Your task to perform on an android device: Open wifi settings Image 0: 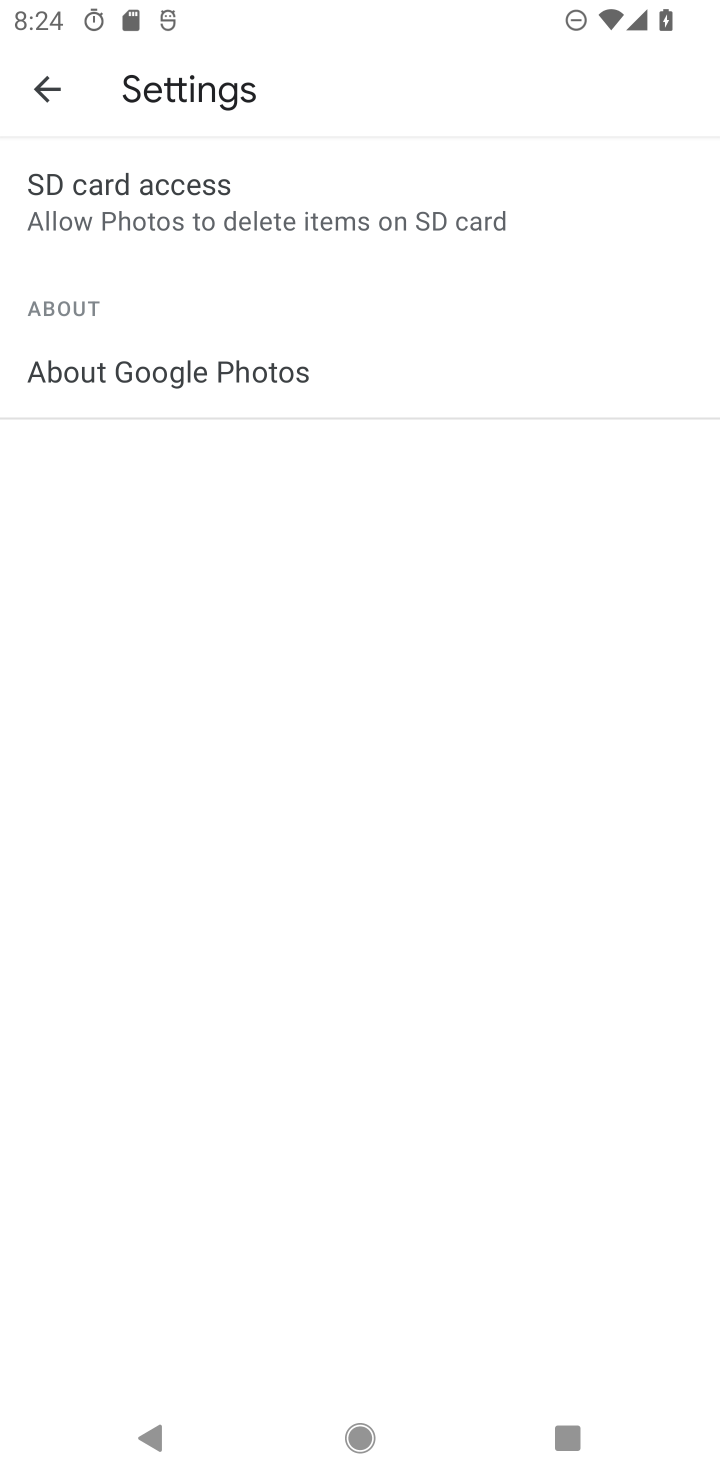
Step 0: press home button
Your task to perform on an android device: Open wifi settings Image 1: 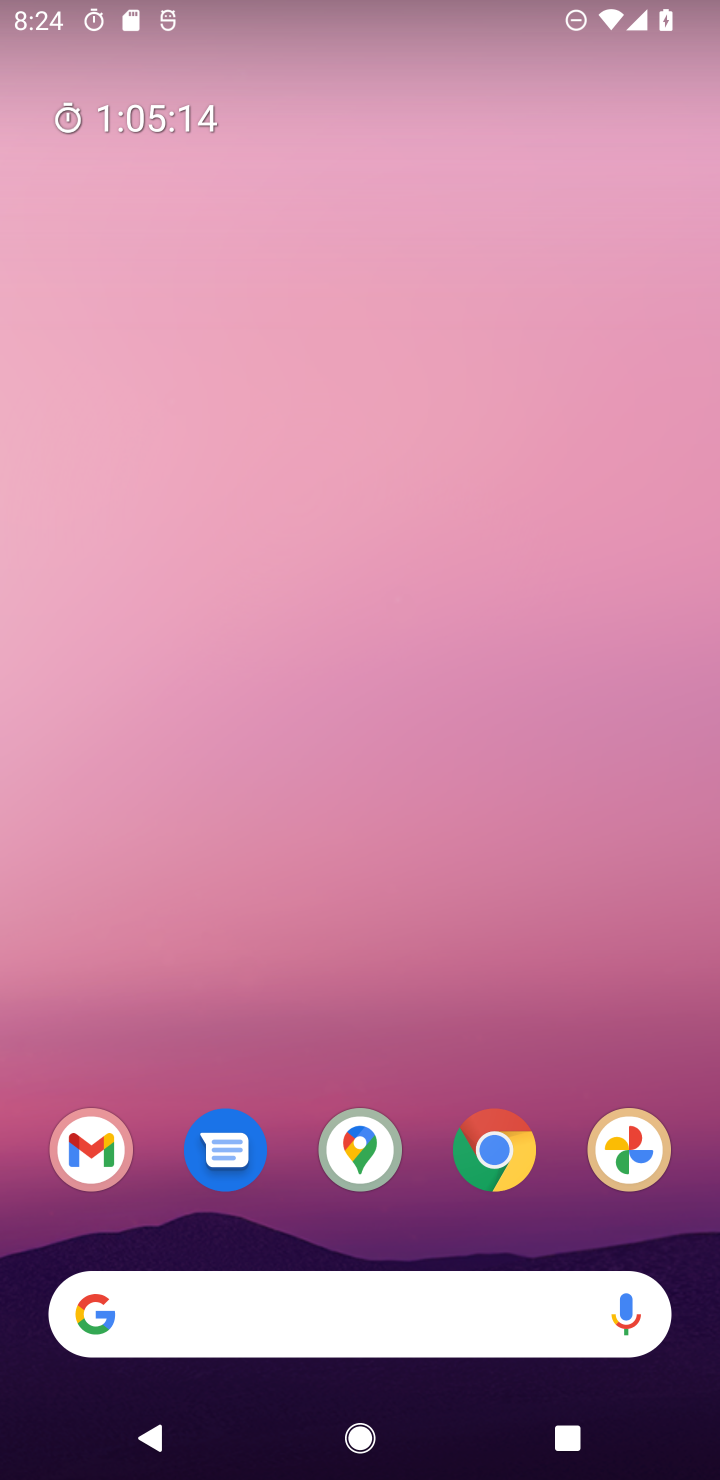
Step 1: drag from (465, 1289) to (434, 14)
Your task to perform on an android device: Open wifi settings Image 2: 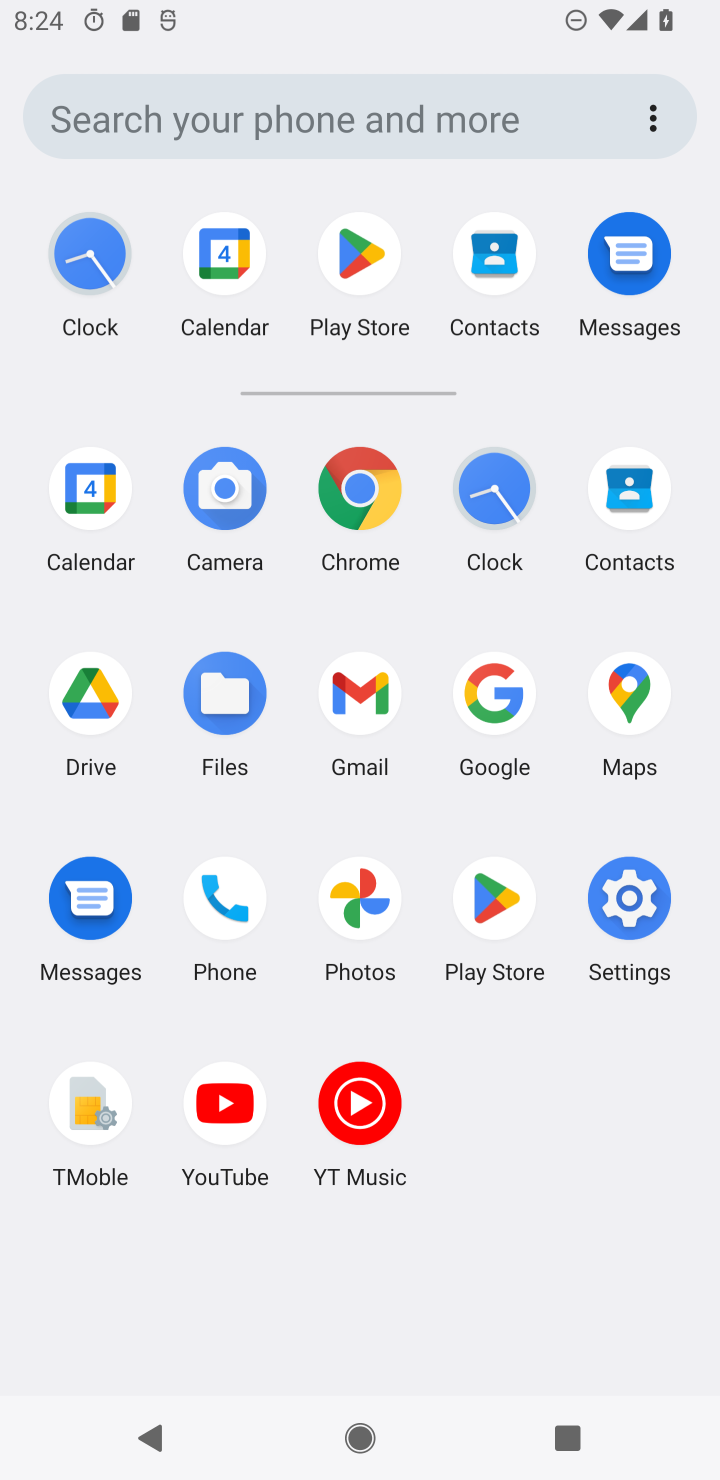
Step 2: click (623, 905)
Your task to perform on an android device: Open wifi settings Image 3: 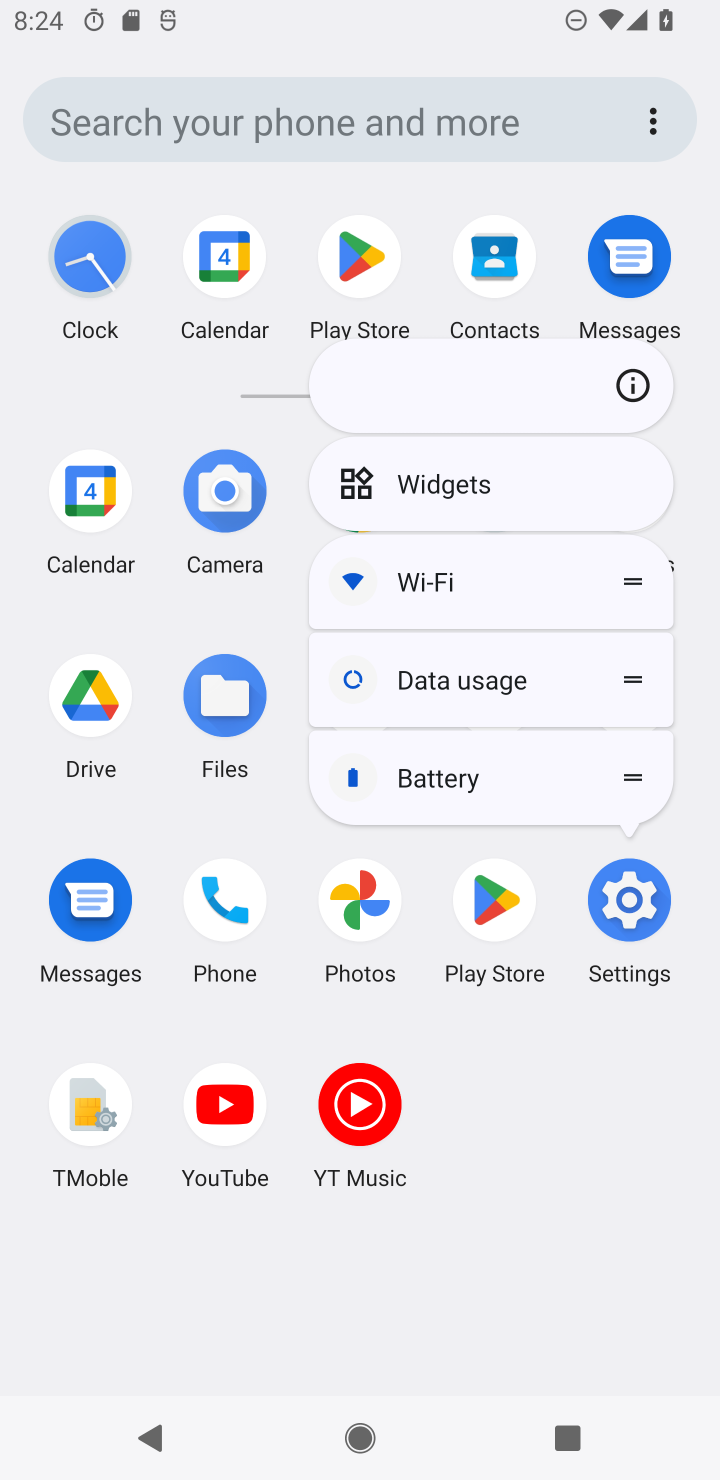
Step 3: click (623, 905)
Your task to perform on an android device: Open wifi settings Image 4: 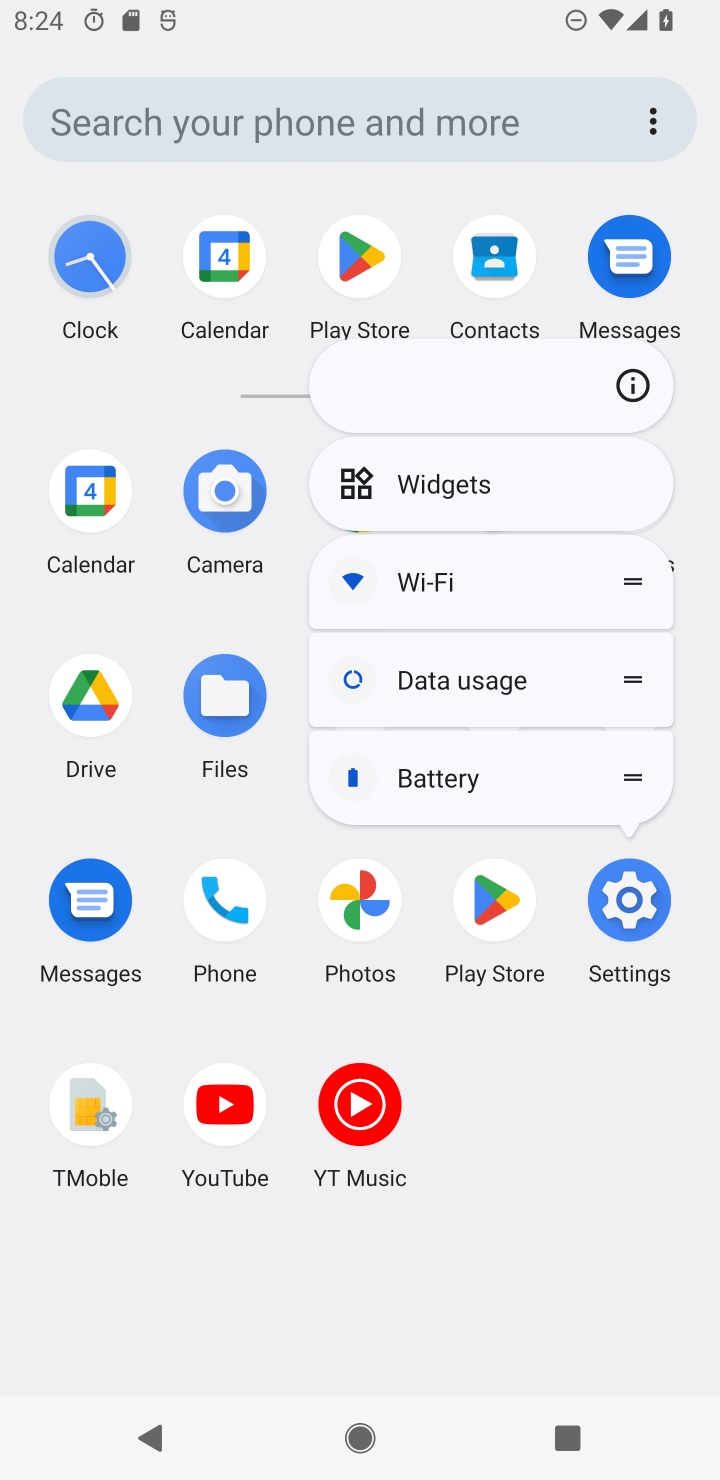
Step 4: click (623, 905)
Your task to perform on an android device: Open wifi settings Image 5: 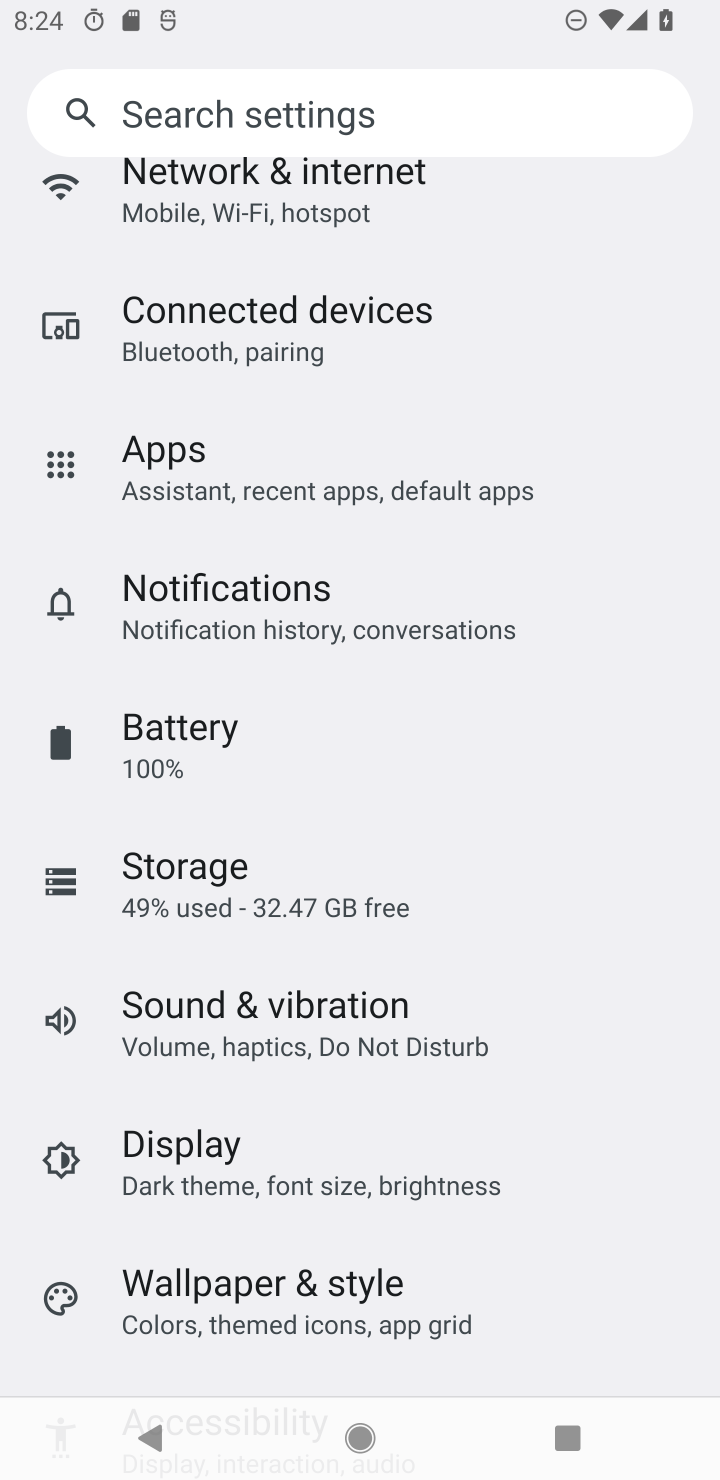
Step 5: drag from (251, 238) to (359, 1253)
Your task to perform on an android device: Open wifi settings Image 6: 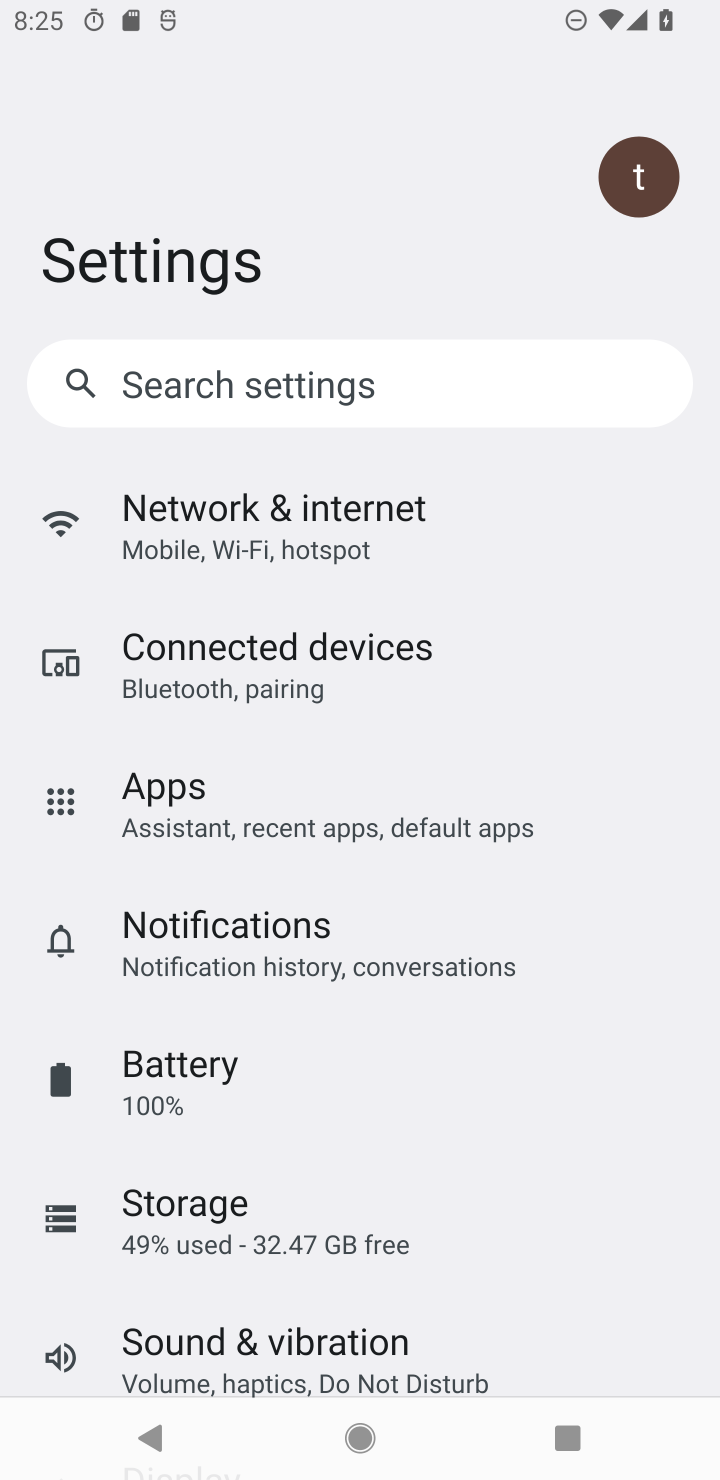
Step 6: click (369, 533)
Your task to perform on an android device: Open wifi settings Image 7: 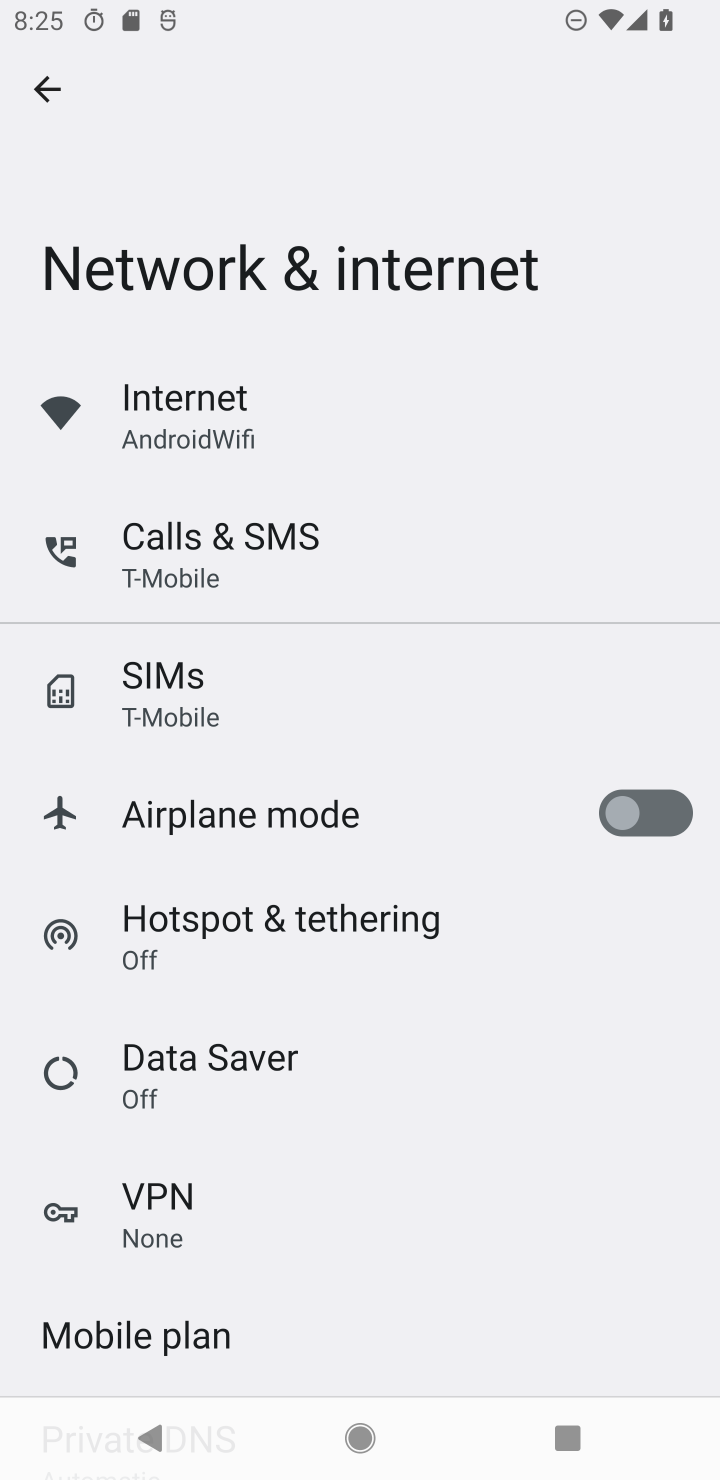
Step 7: task complete